Your task to perform on an android device: change the clock style Image 0: 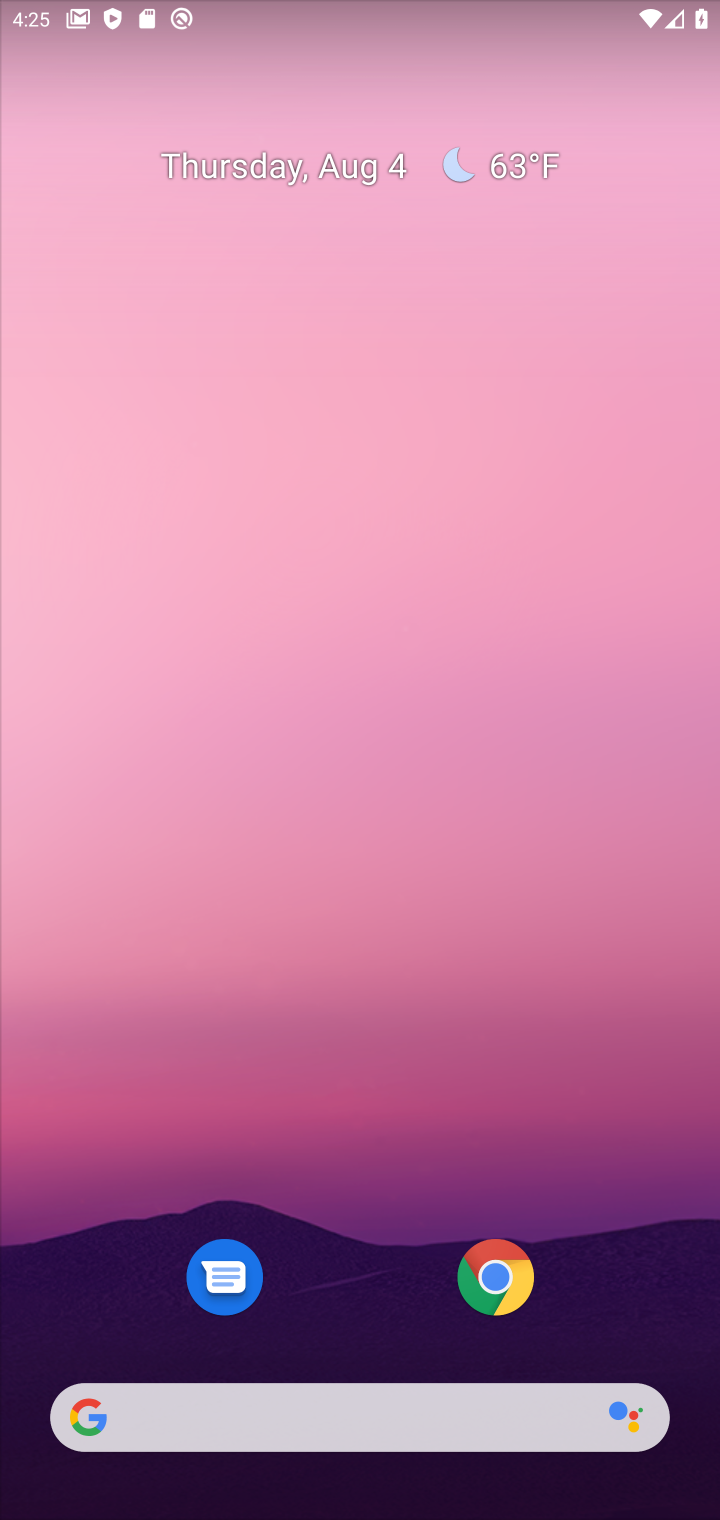
Step 0: drag from (465, 1057) to (386, 197)
Your task to perform on an android device: change the clock style Image 1: 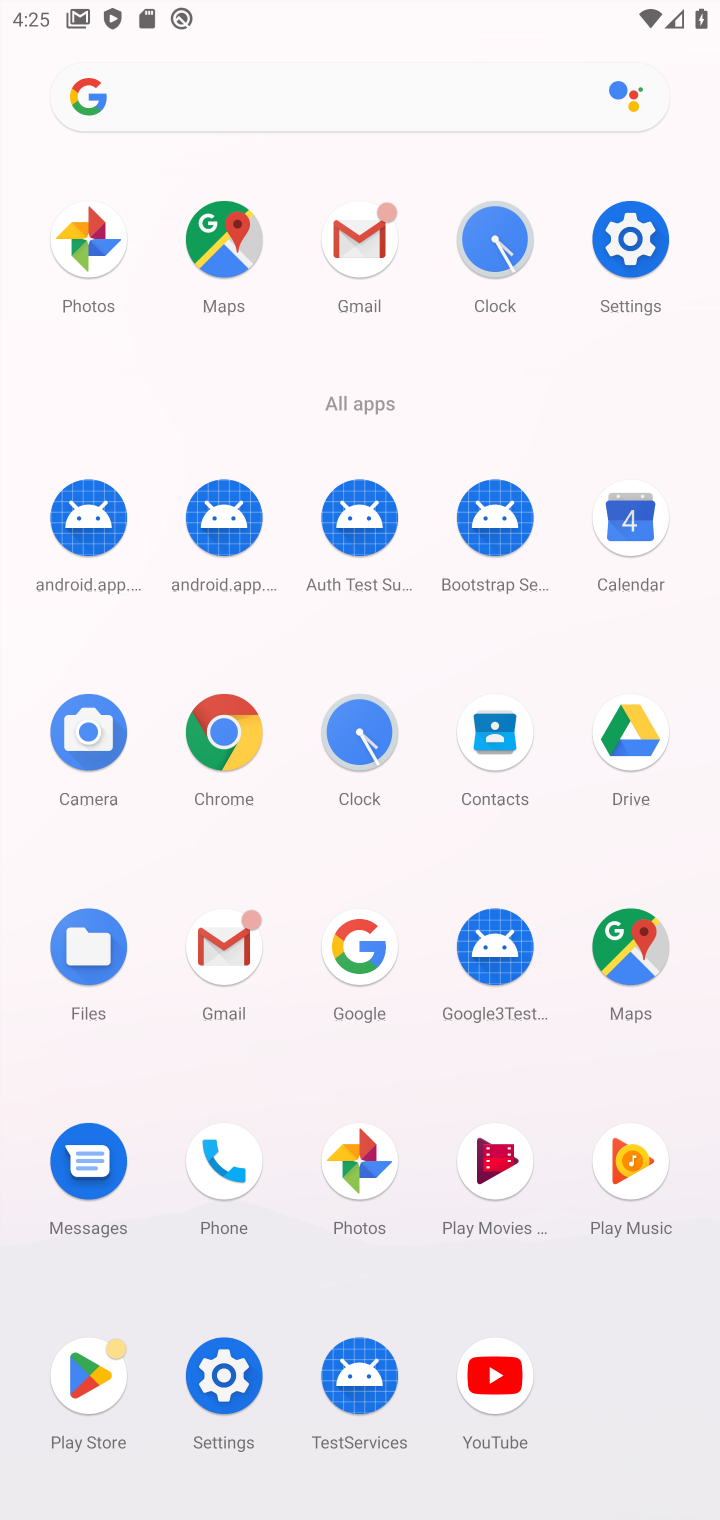
Step 1: click (485, 237)
Your task to perform on an android device: change the clock style Image 2: 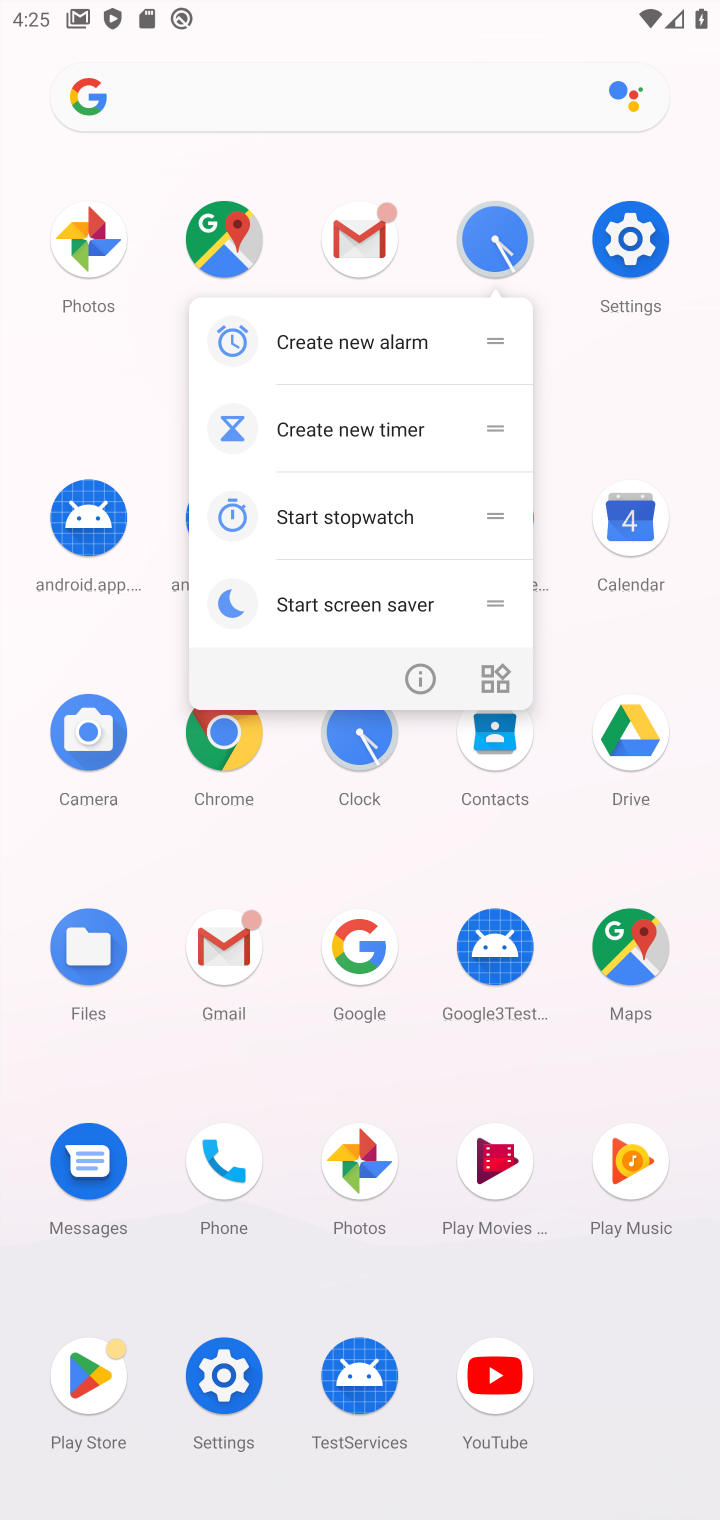
Step 2: click (485, 237)
Your task to perform on an android device: change the clock style Image 3: 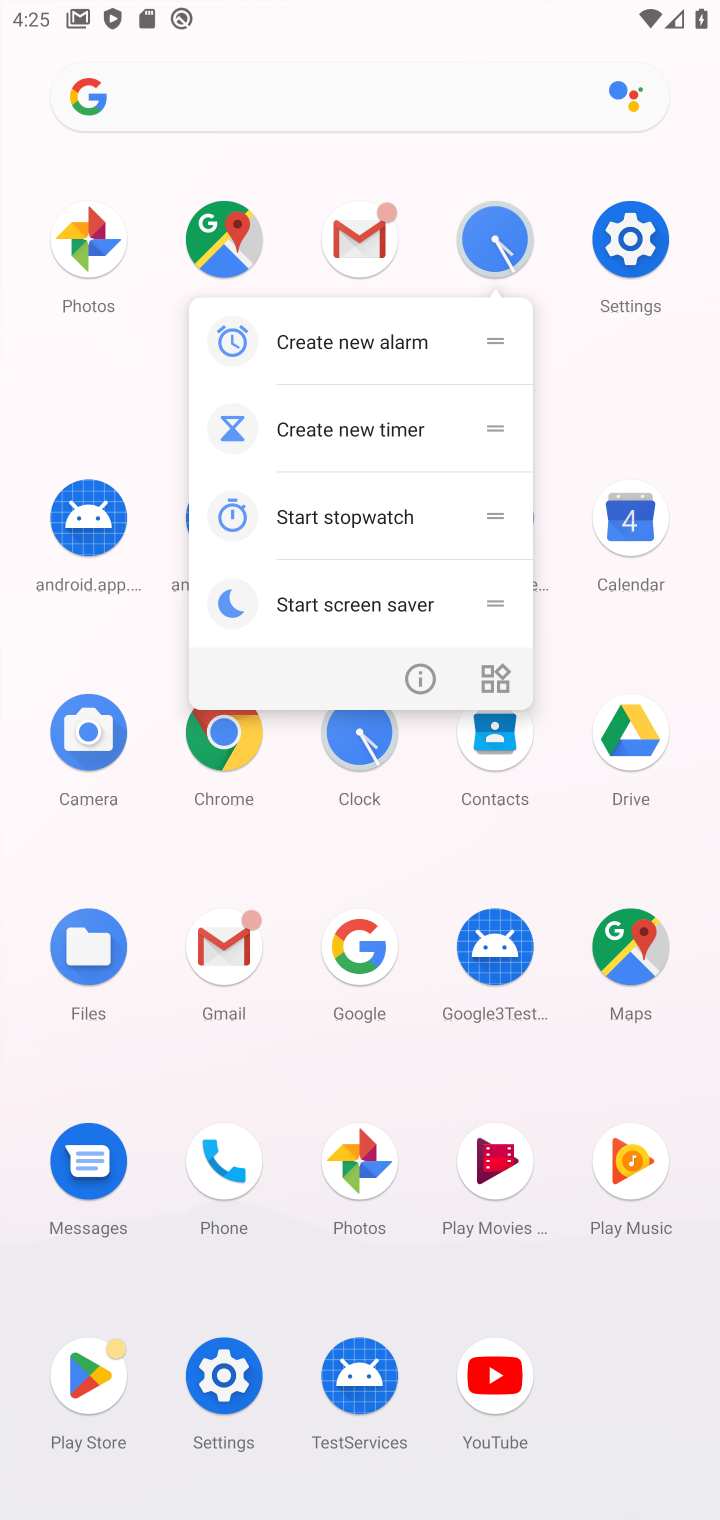
Step 3: click (485, 237)
Your task to perform on an android device: change the clock style Image 4: 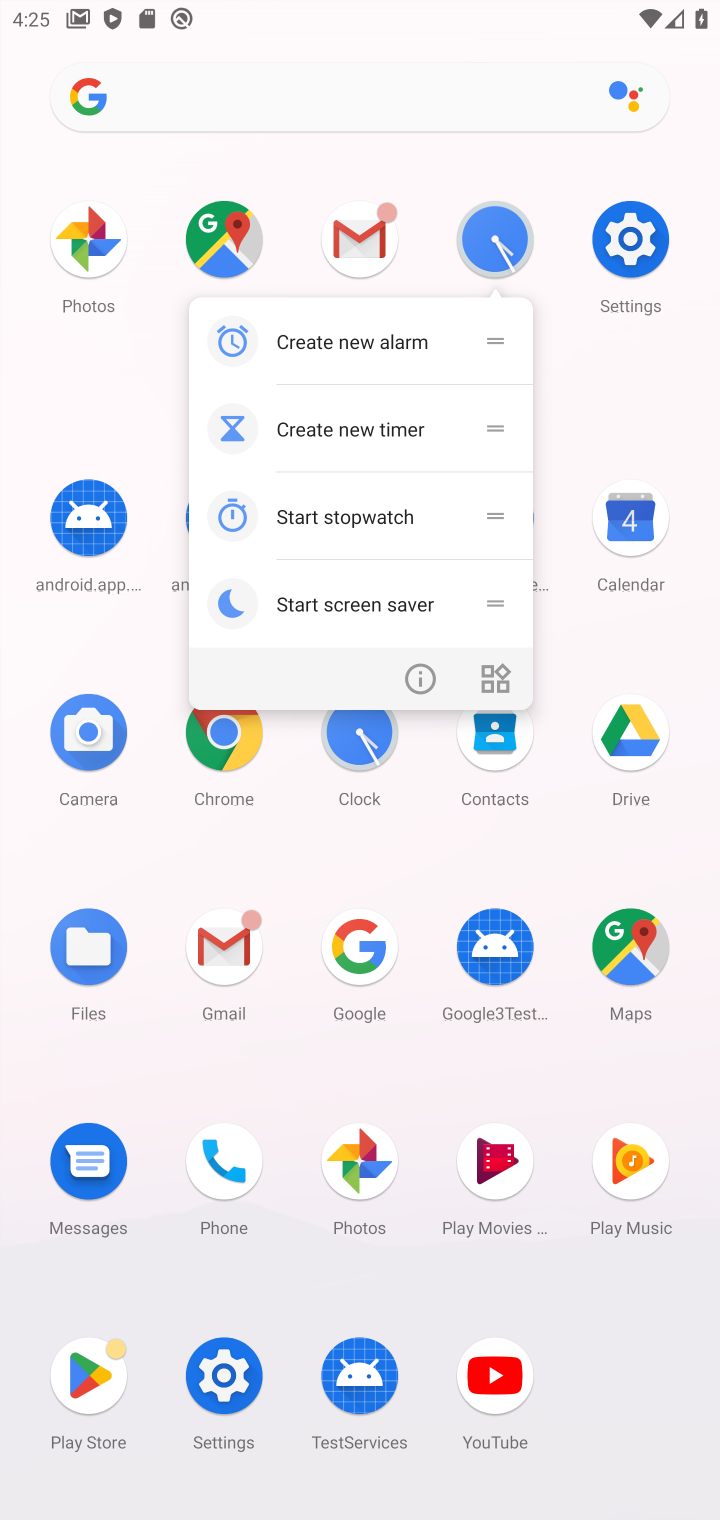
Step 4: click (485, 237)
Your task to perform on an android device: change the clock style Image 5: 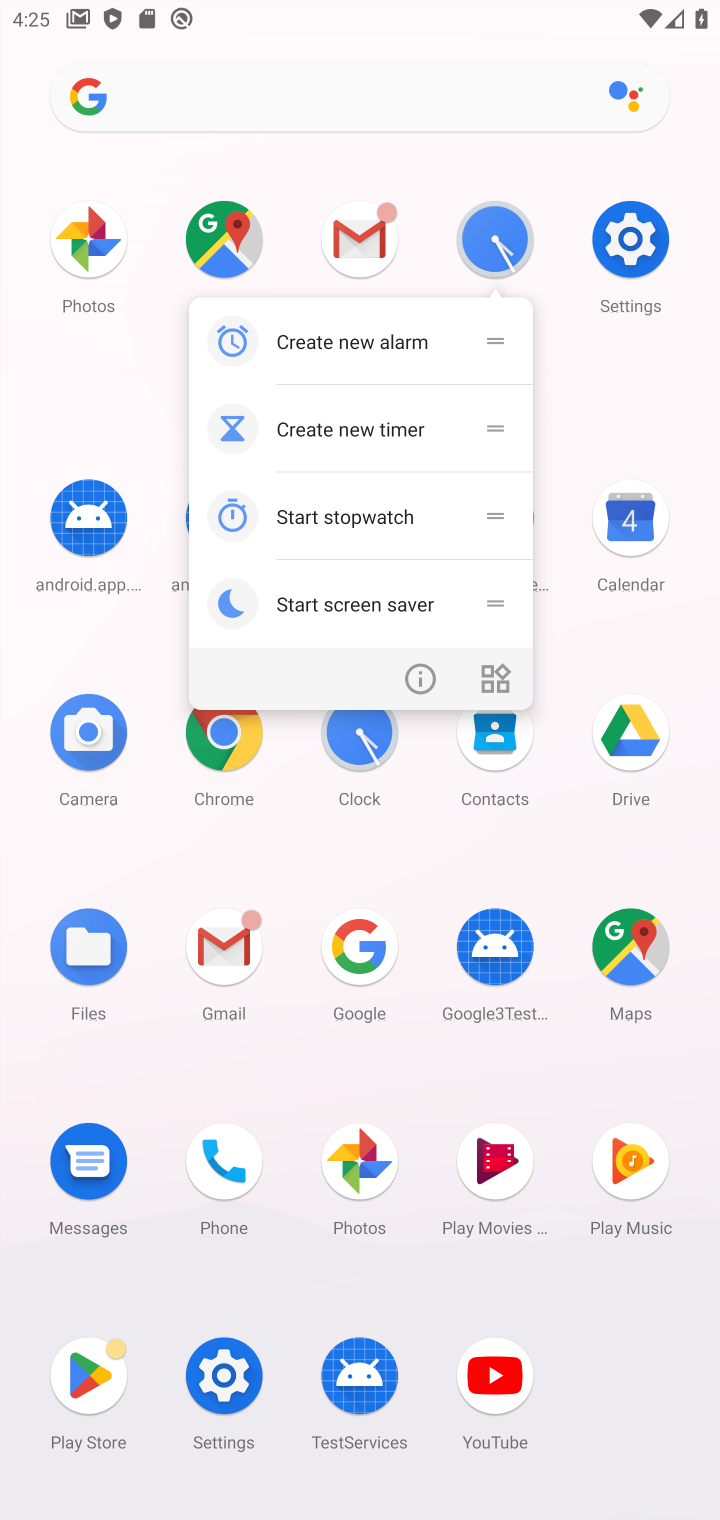
Step 5: click (521, 234)
Your task to perform on an android device: change the clock style Image 6: 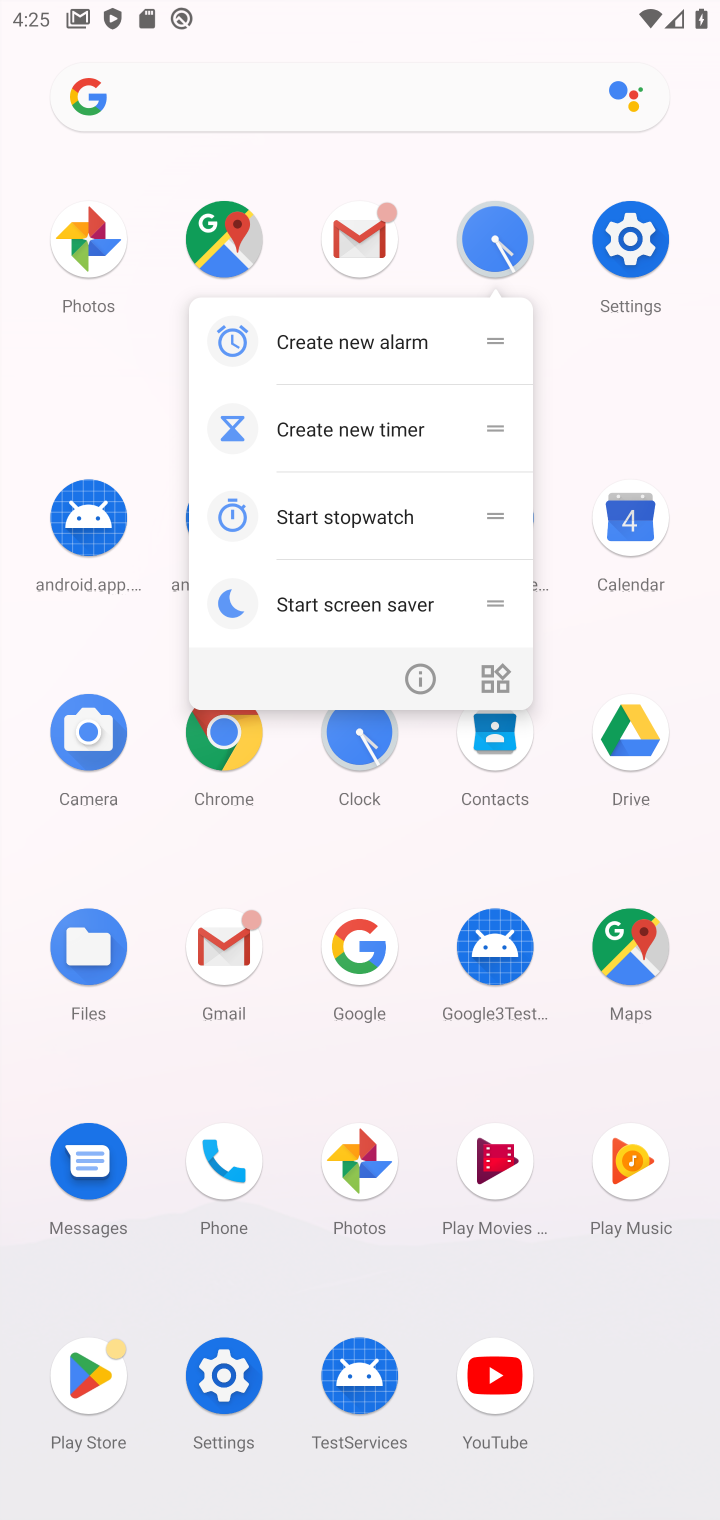
Step 6: click (503, 238)
Your task to perform on an android device: change the clock style Image 7: 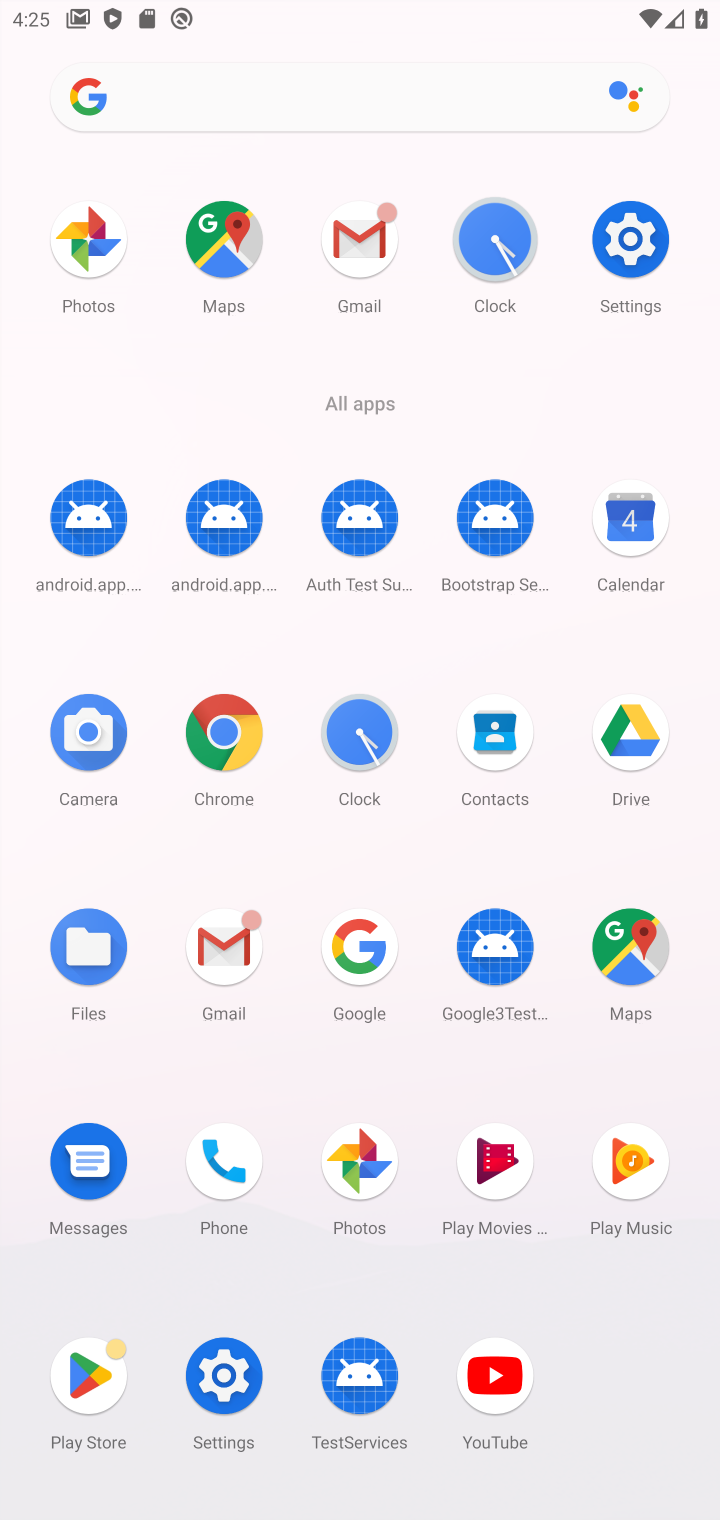
Step 7: click (503, 236)
Your task to perform on an android device: change the clock style Image 8: 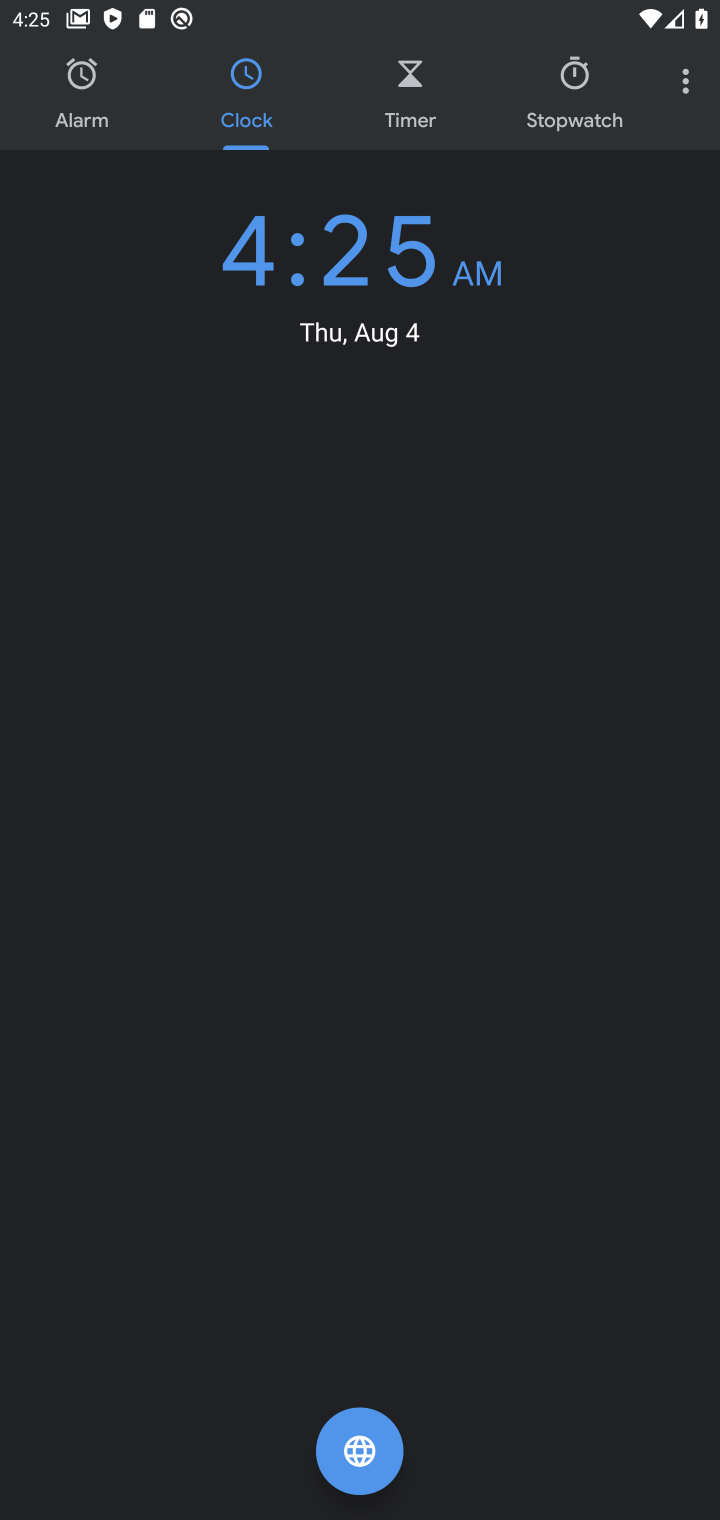
Step 8: click (705, 92)
Your task to perform on an android device: change the clock style Image 9: 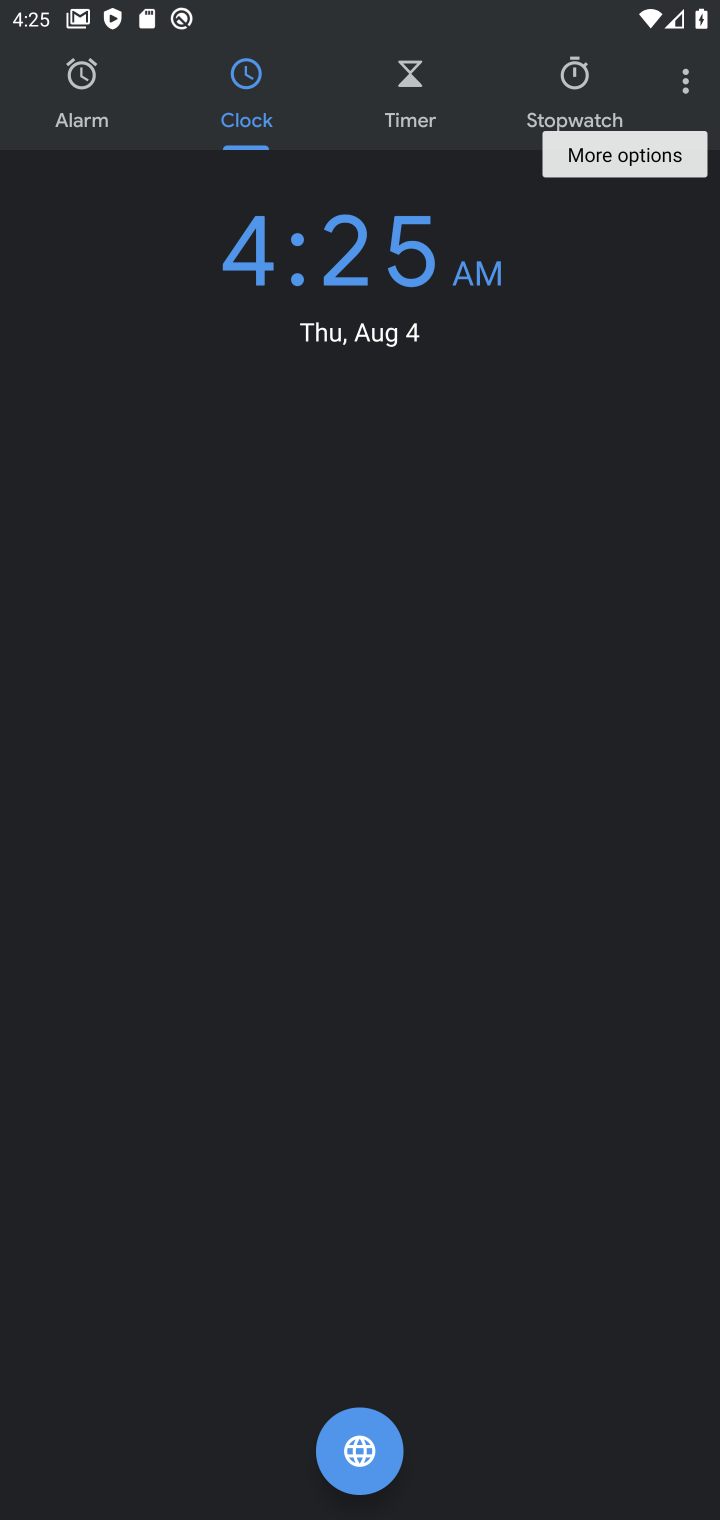
Step 9: click (687, 89)
Your task to perform on an android device: change the clock style Image 10: 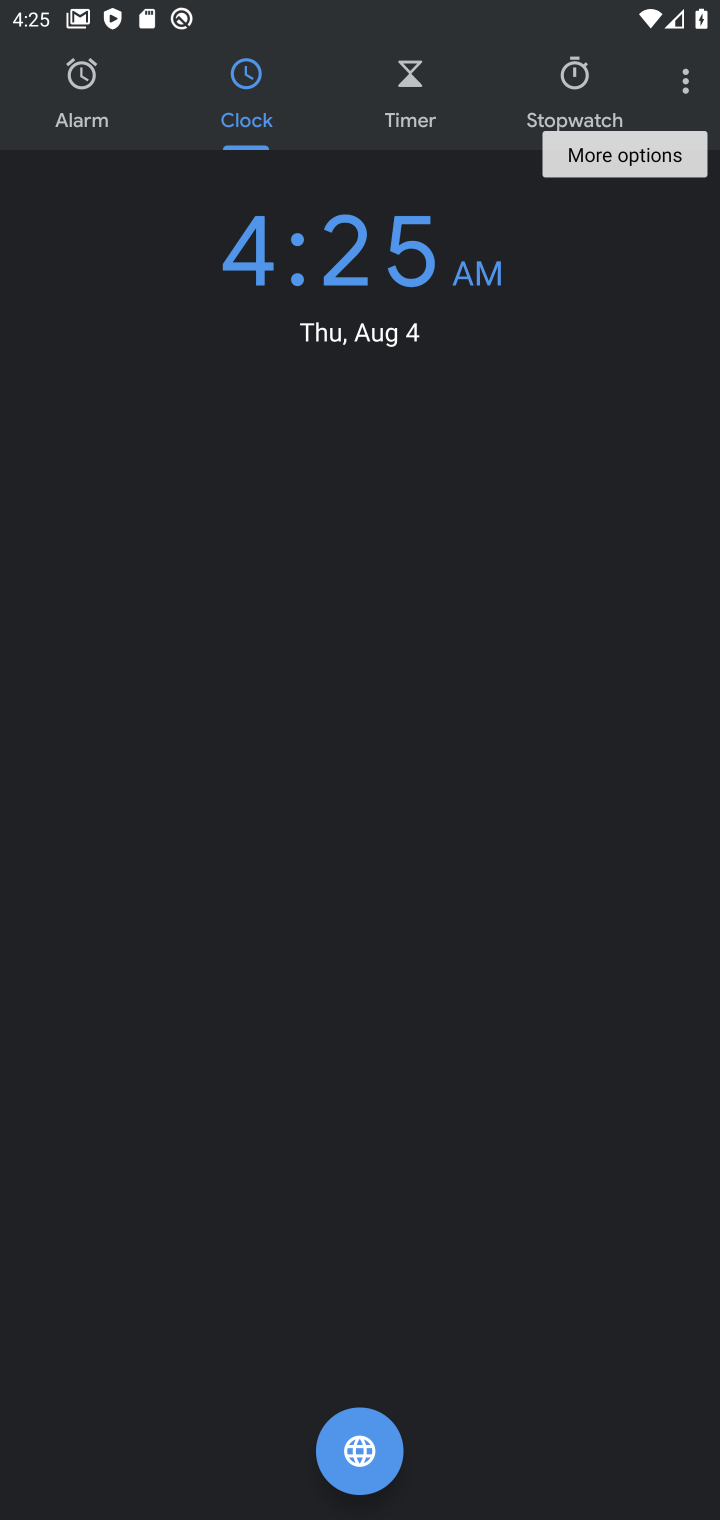
Step 10: click (665, 103)
Your task to perform on an android device: change the clock style Image 11: 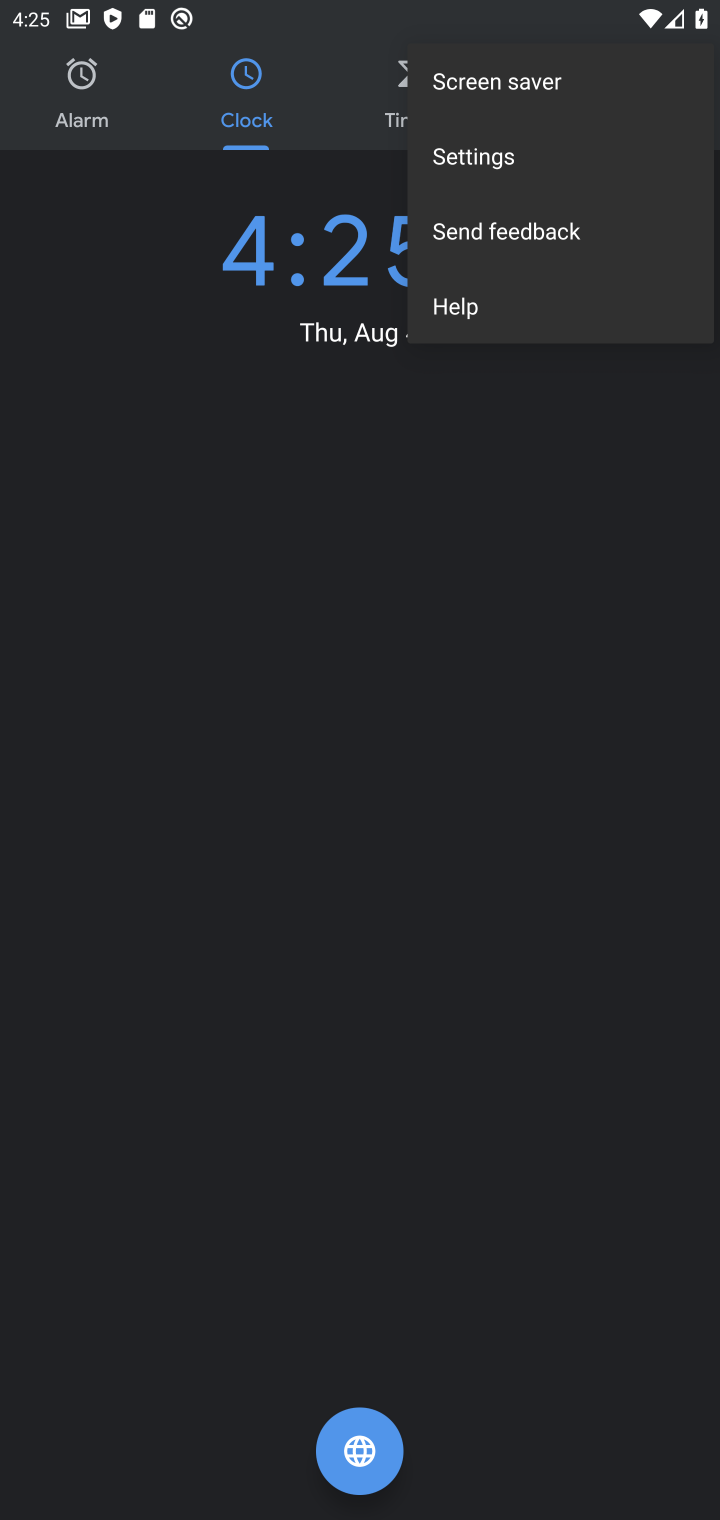
Step 11: click (473, 165)
Your task to perform on an android device: change the clock style Image 12: 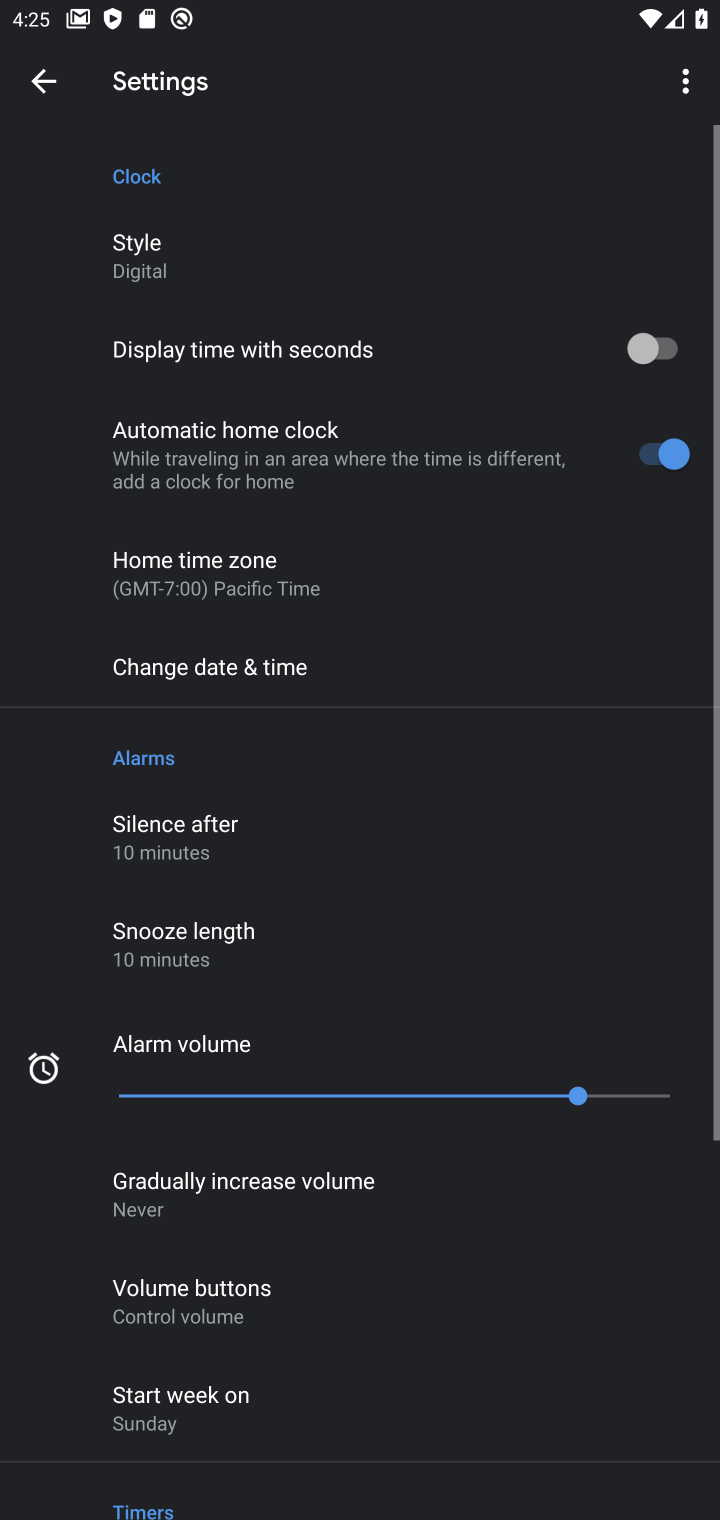
Step 12: click (153, 256)
Your task to perform on an android device: change the clock style Image 13: 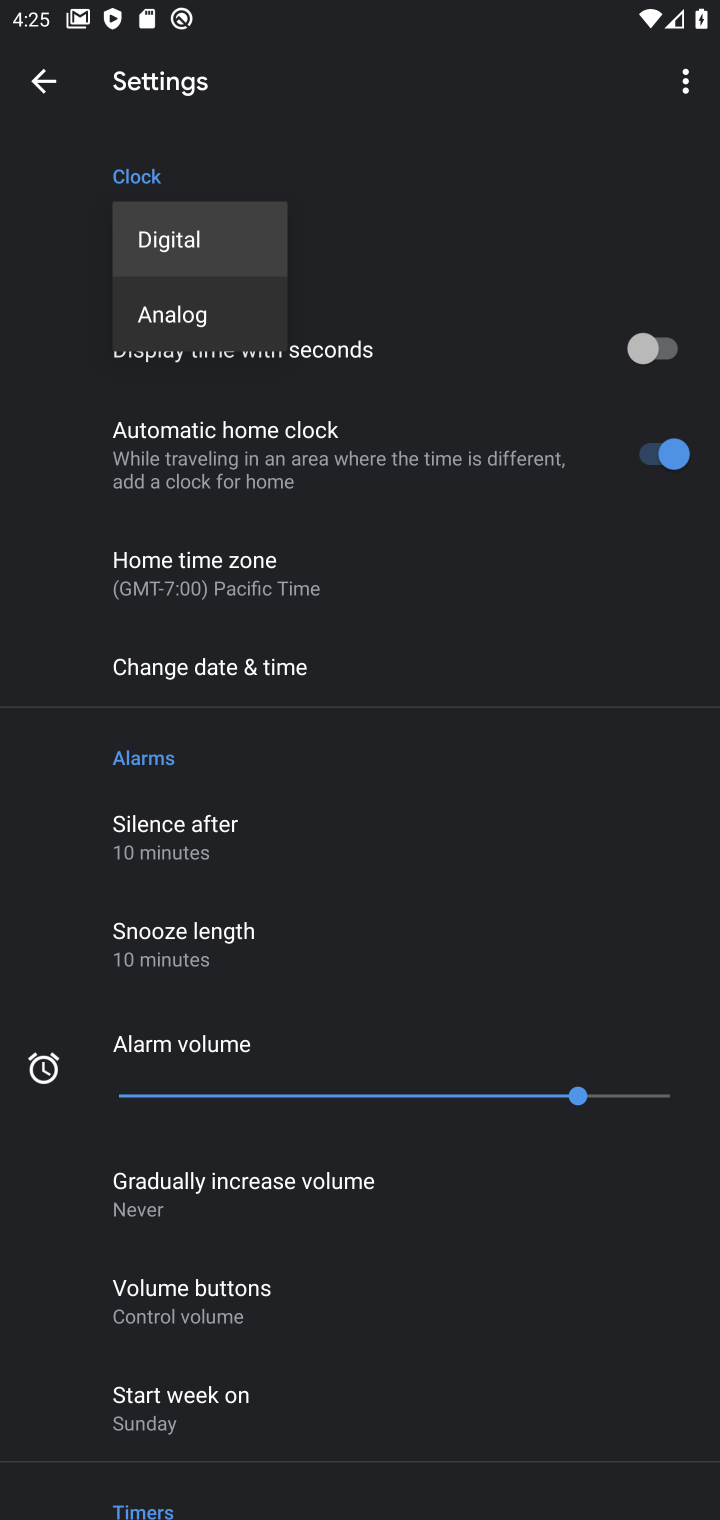
Step 13: click (210, 320)
Your task to perform on an android device: change the clock style Image 14: 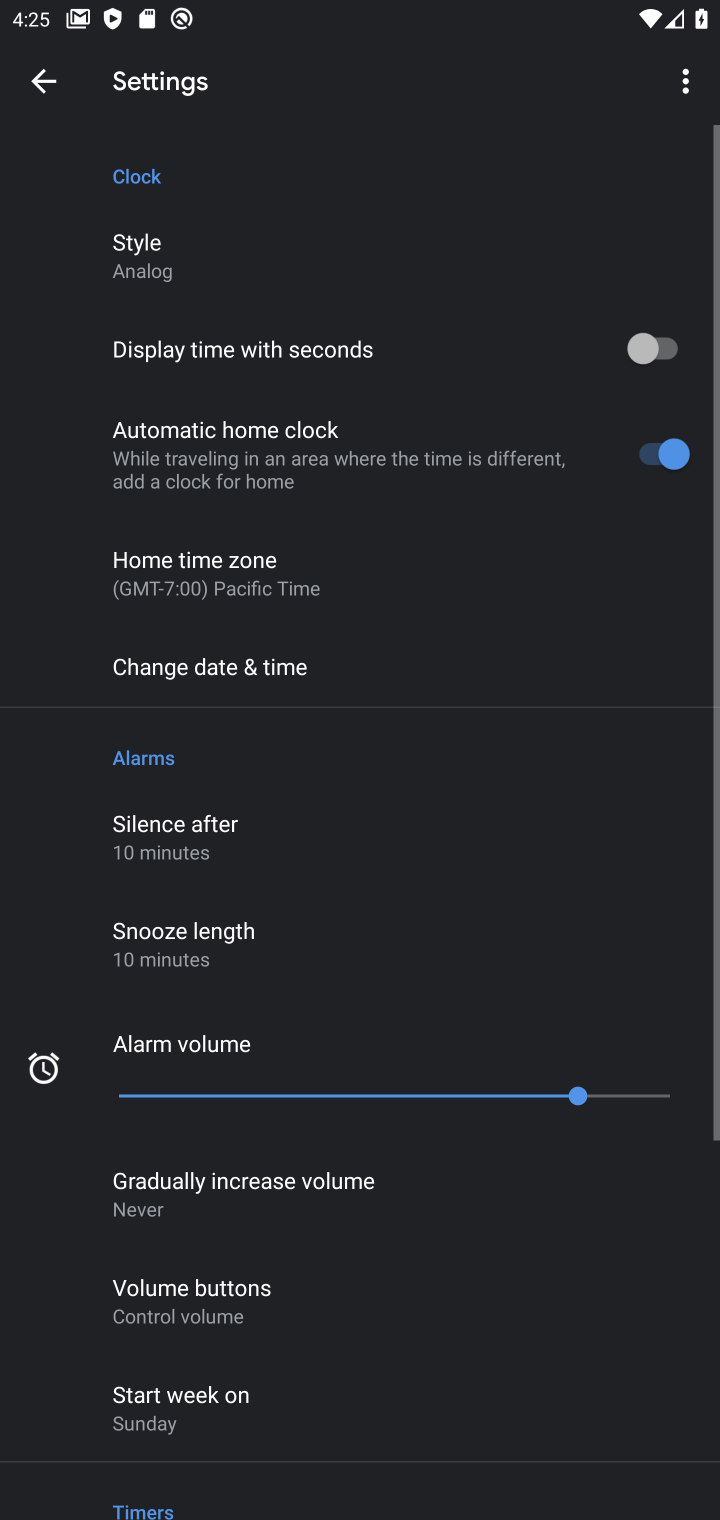
Step 14: task complete